Your task to perform on an android device: set an alarm Image 0: 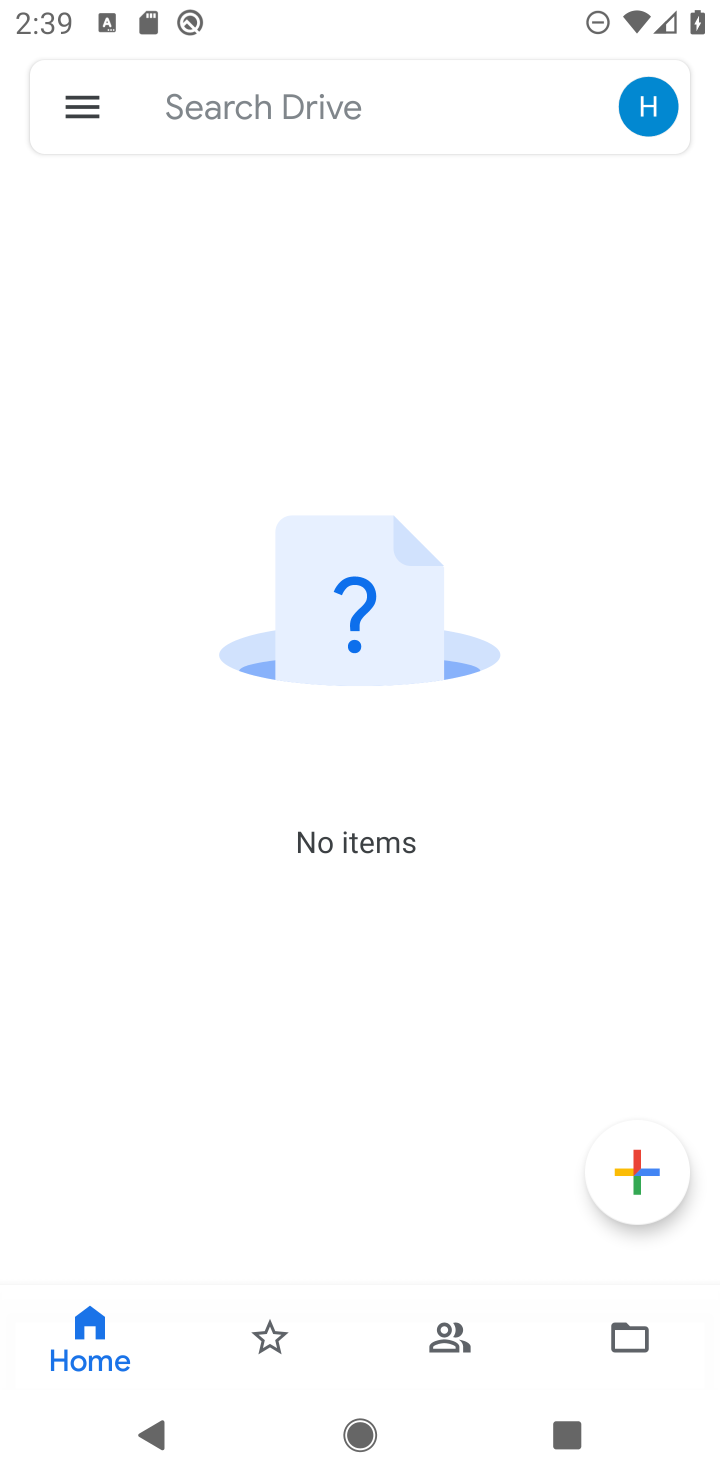
Step 0: press home button
Your task to perform on an android device: set an alarm Image 1: 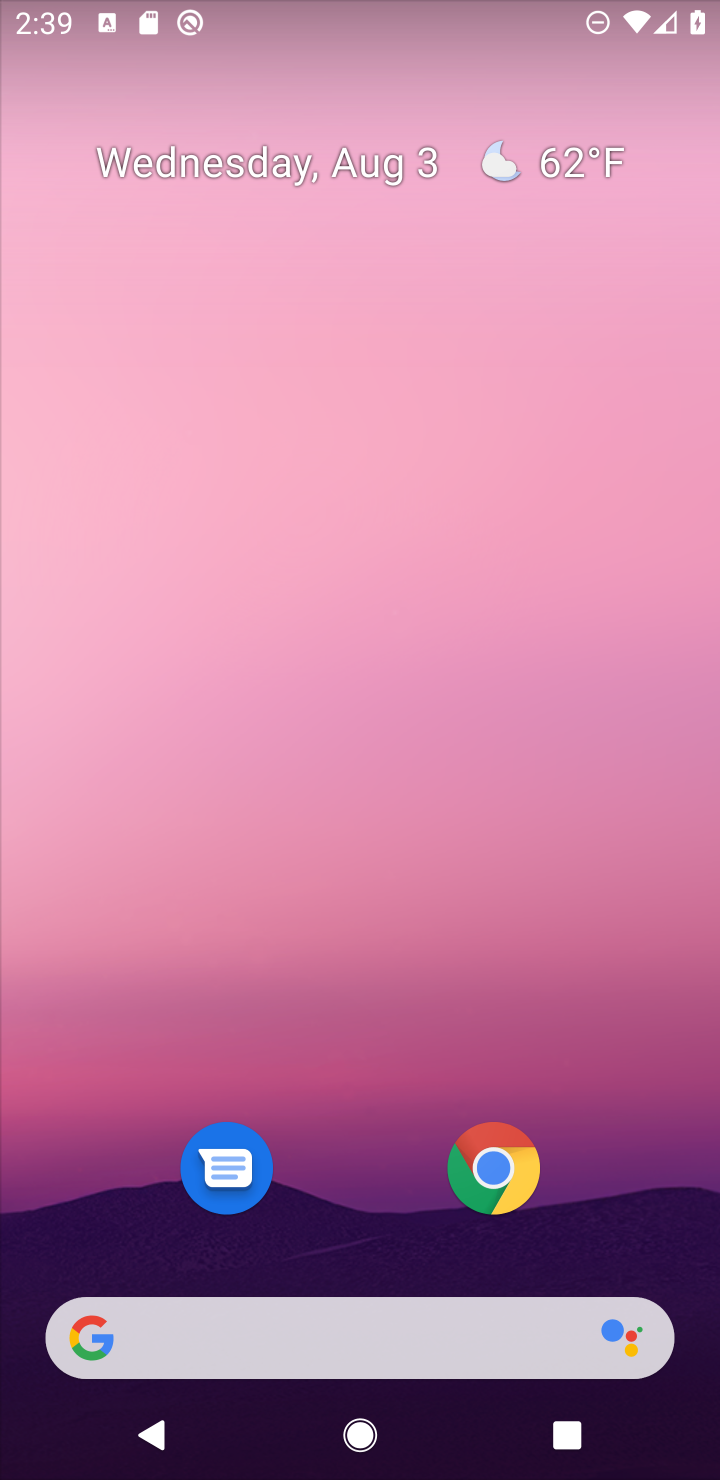
Step 1: drag from (641, 1226) to (568, 253)
Your task to perform on an android device: set an alarm Image 2: 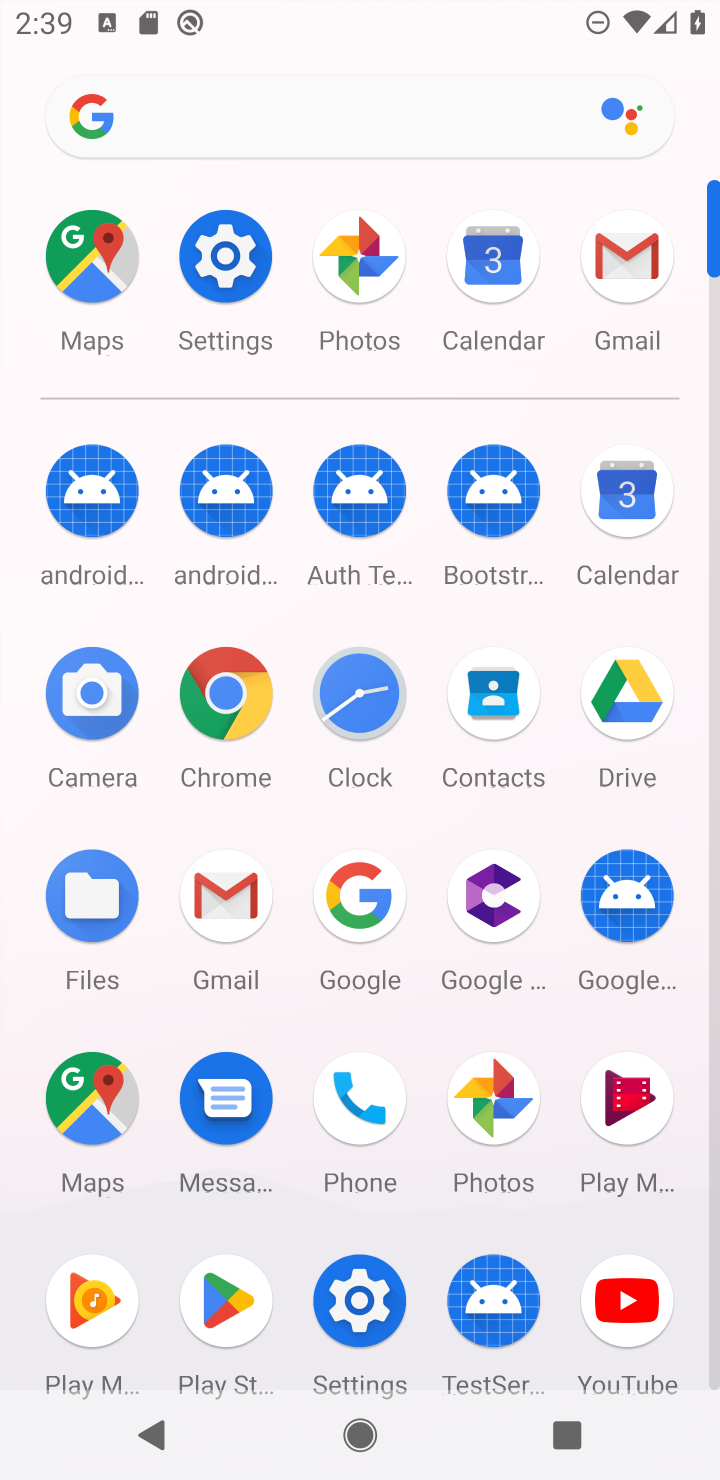
Step 2: click (359, 696)
Your task to perform on an android device: set an alarm Image 3: 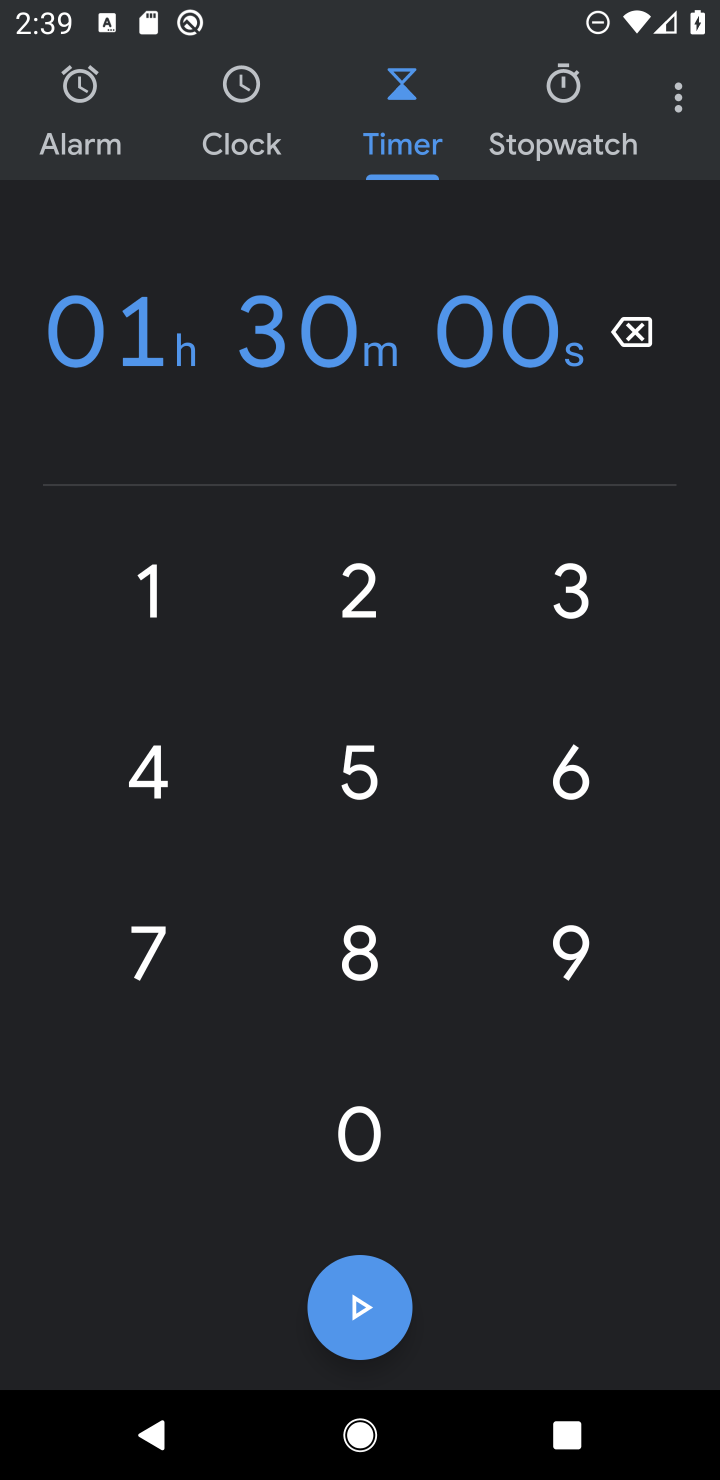
Step 3: click (85, 107)
Your task to perform on an android device: set an alarm Image 4: 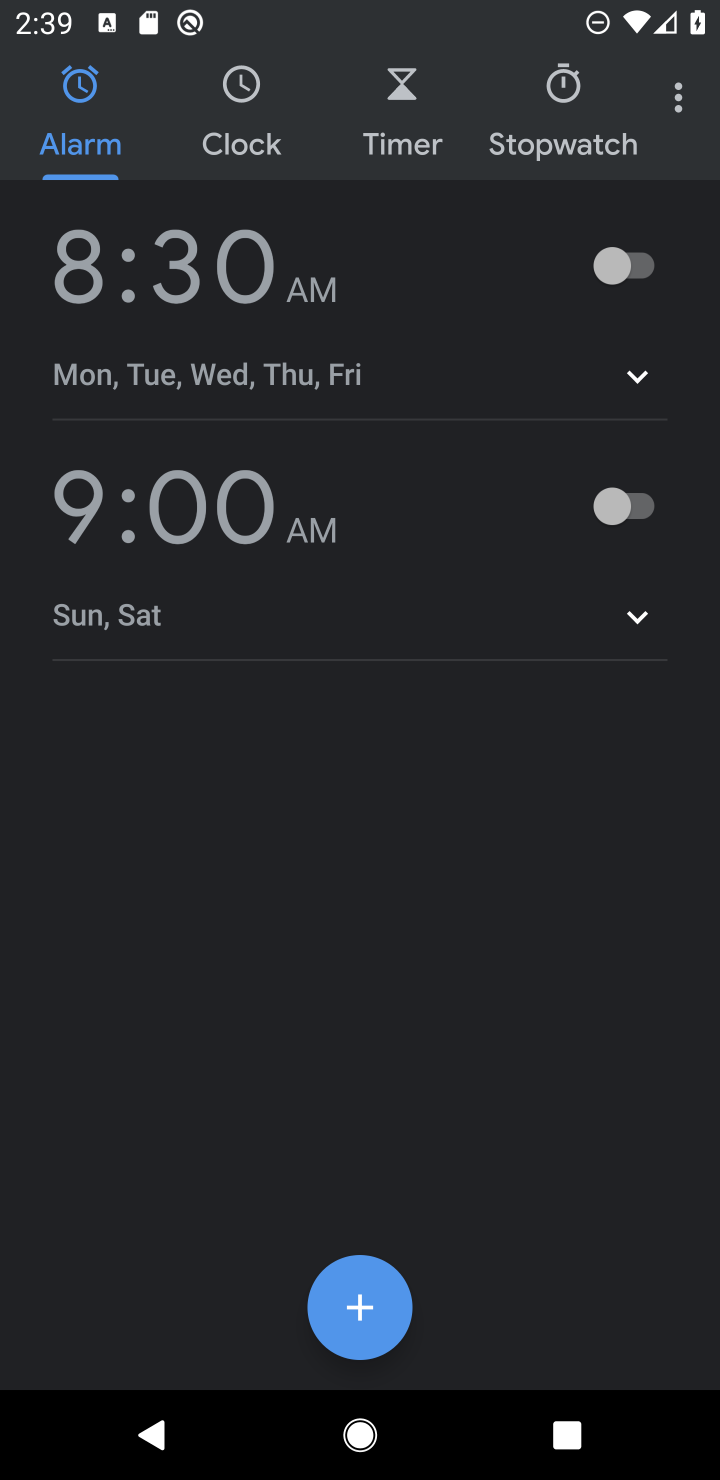
Step 4: click (168, 514)
Your task to perform on an android device: set an alarm Image 5: 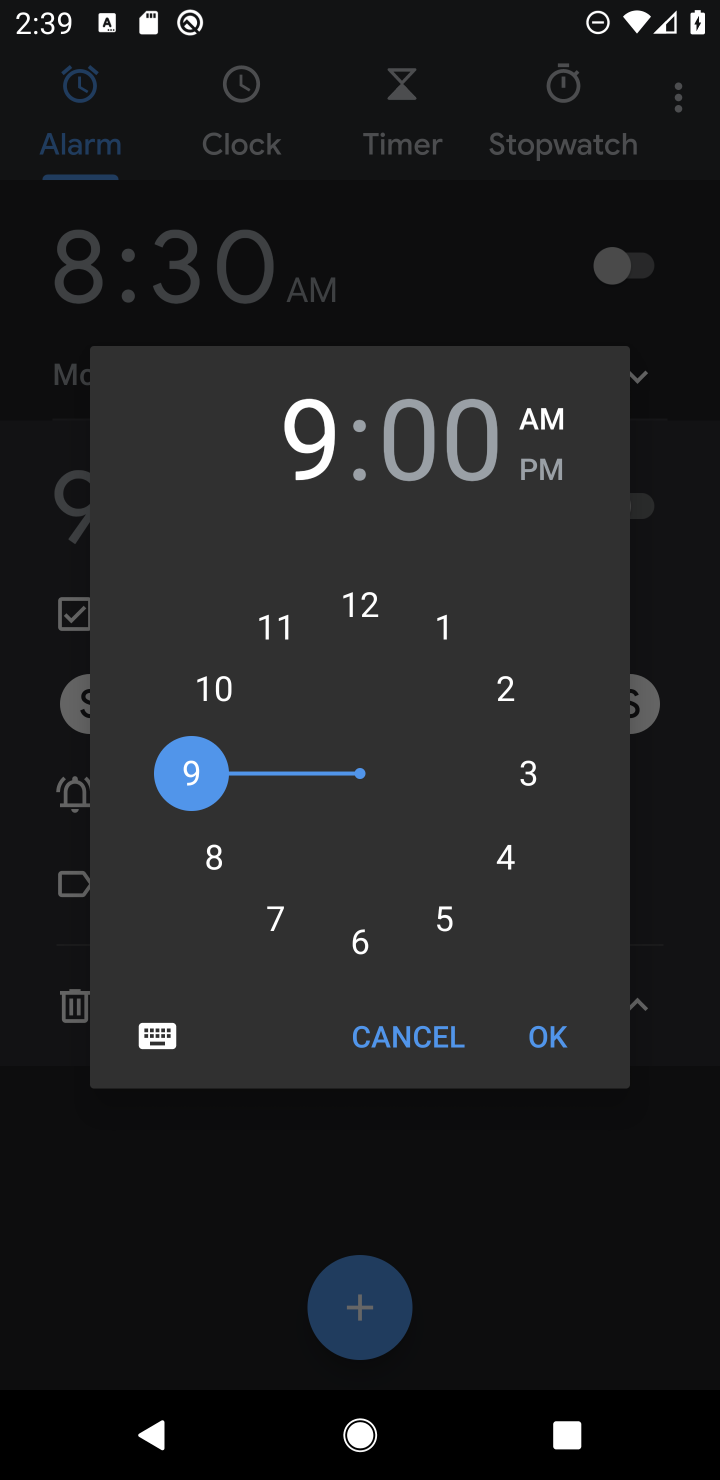
Step 5: click (361, 941)
Your task to perform on an android device: set an alarm Image 6: 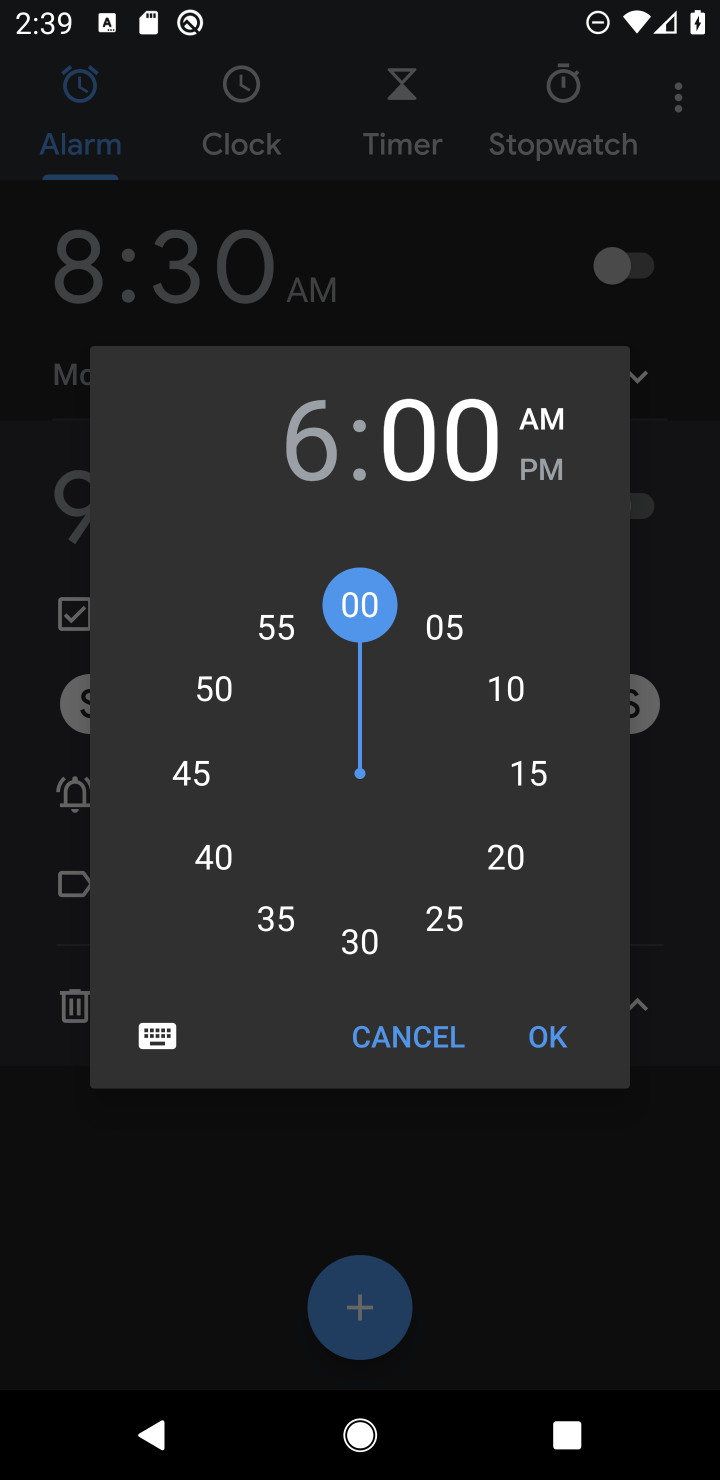
Step 6: click (553, 1039)
Your task to perform on an android device: set an alarm Image 7: 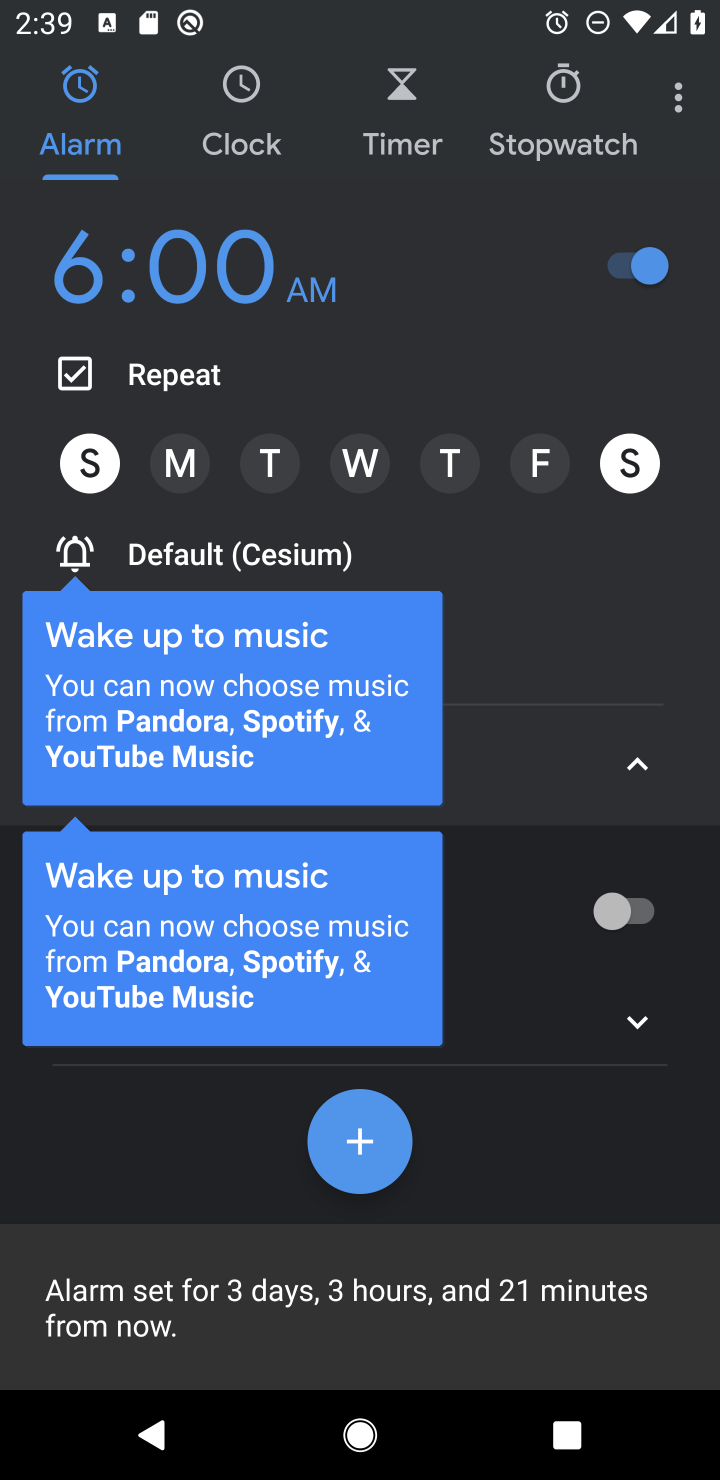
Step 7: click (194, 458)
Your task to perform on an android device: set an alarm Image 8: 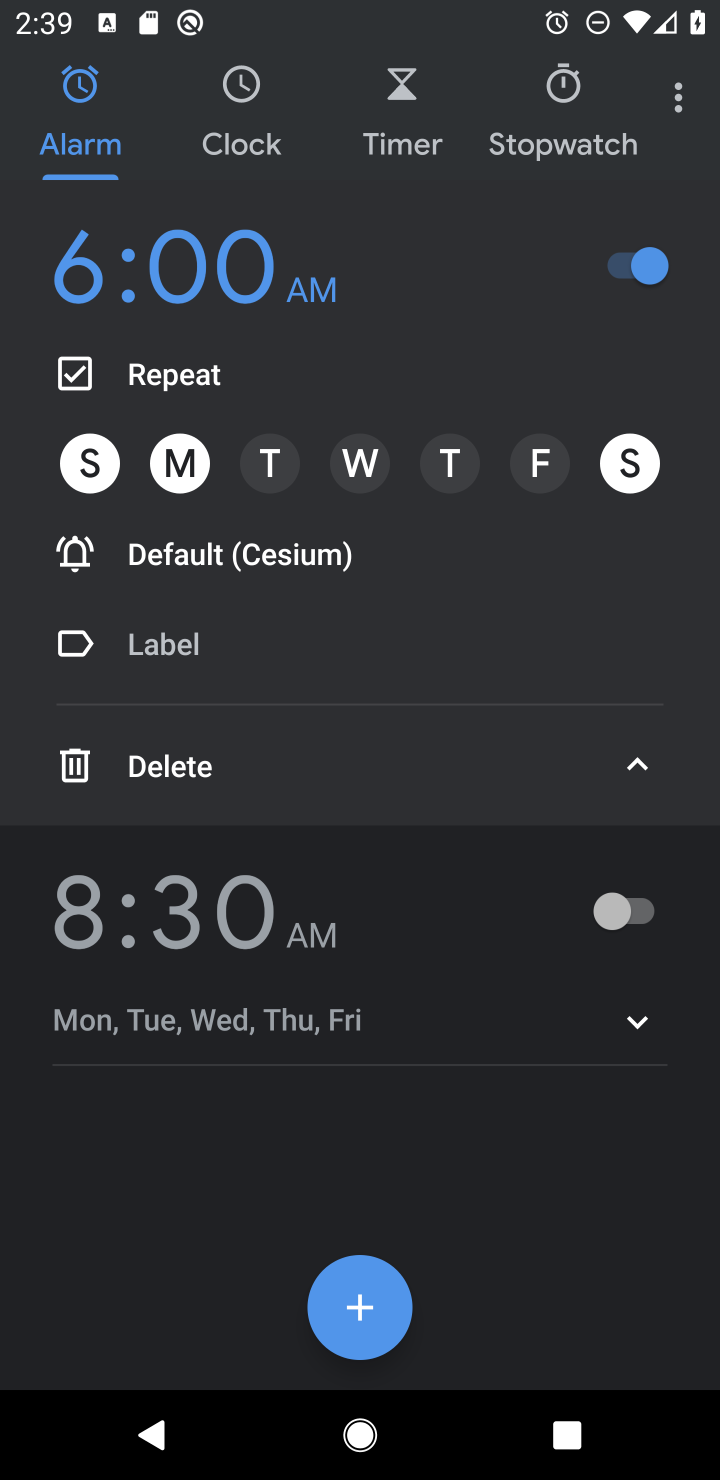
Step 8: click (267, 461)
Your task to perform on an android device: set an alarm Image 9: 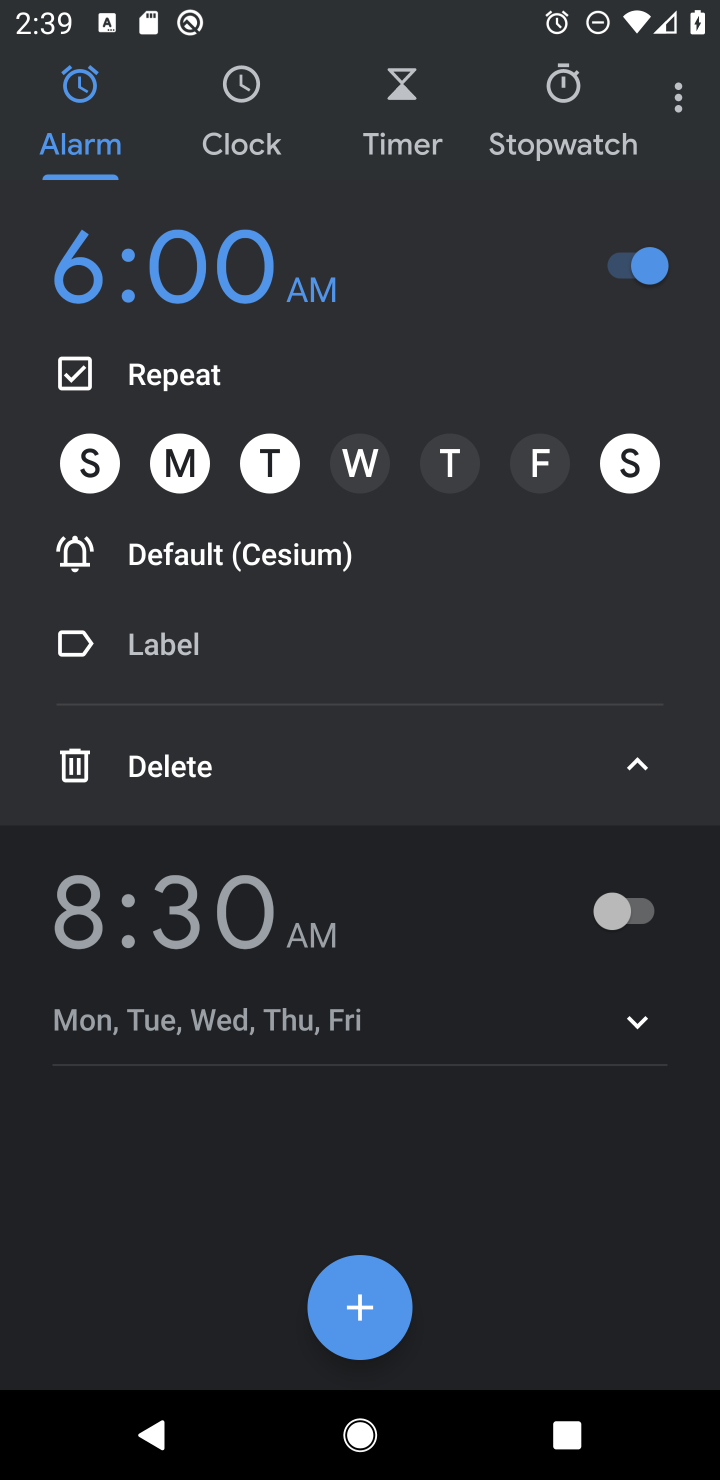
Step 9: click (344, 457)
Your task to perform on an android device: set an alarm Image 10: 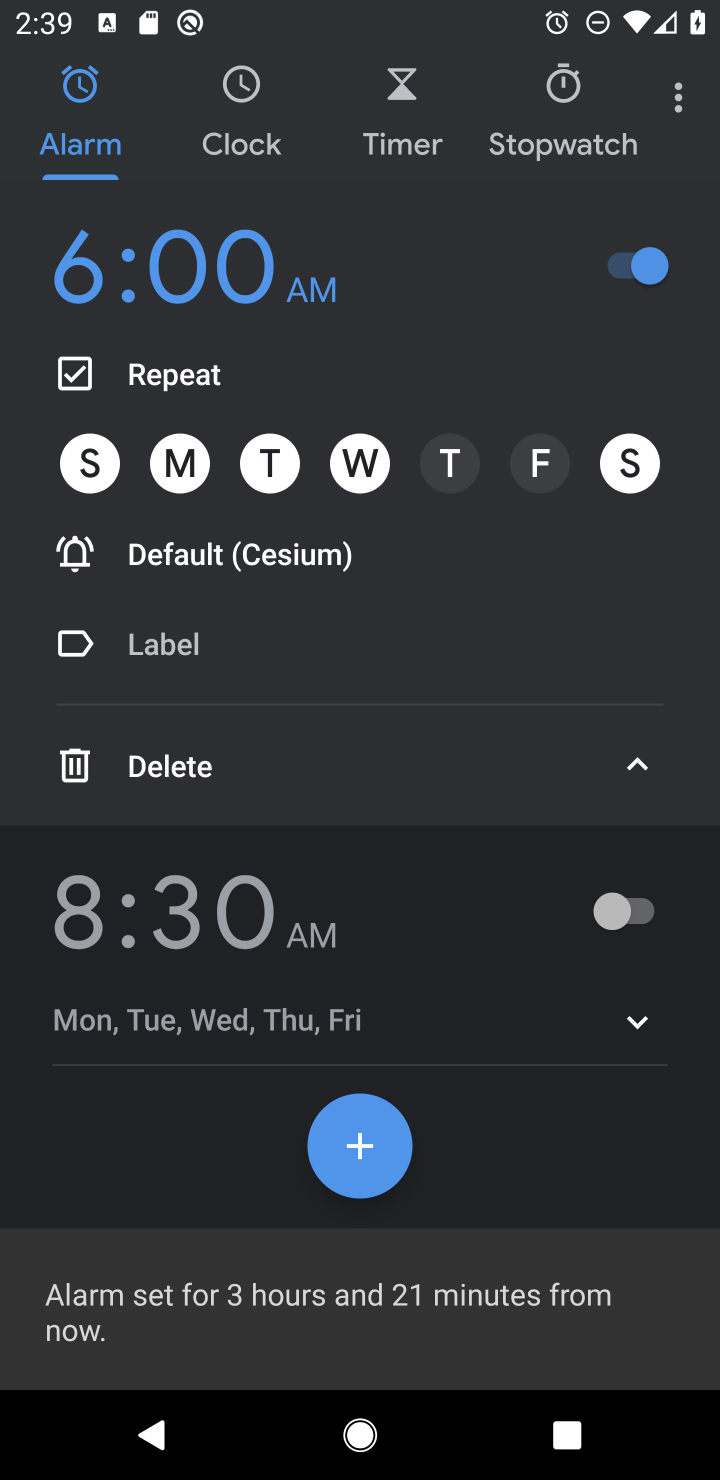
Step 10: click (442, 449)
Your task to perform on an android device: set an alarm Image 11: 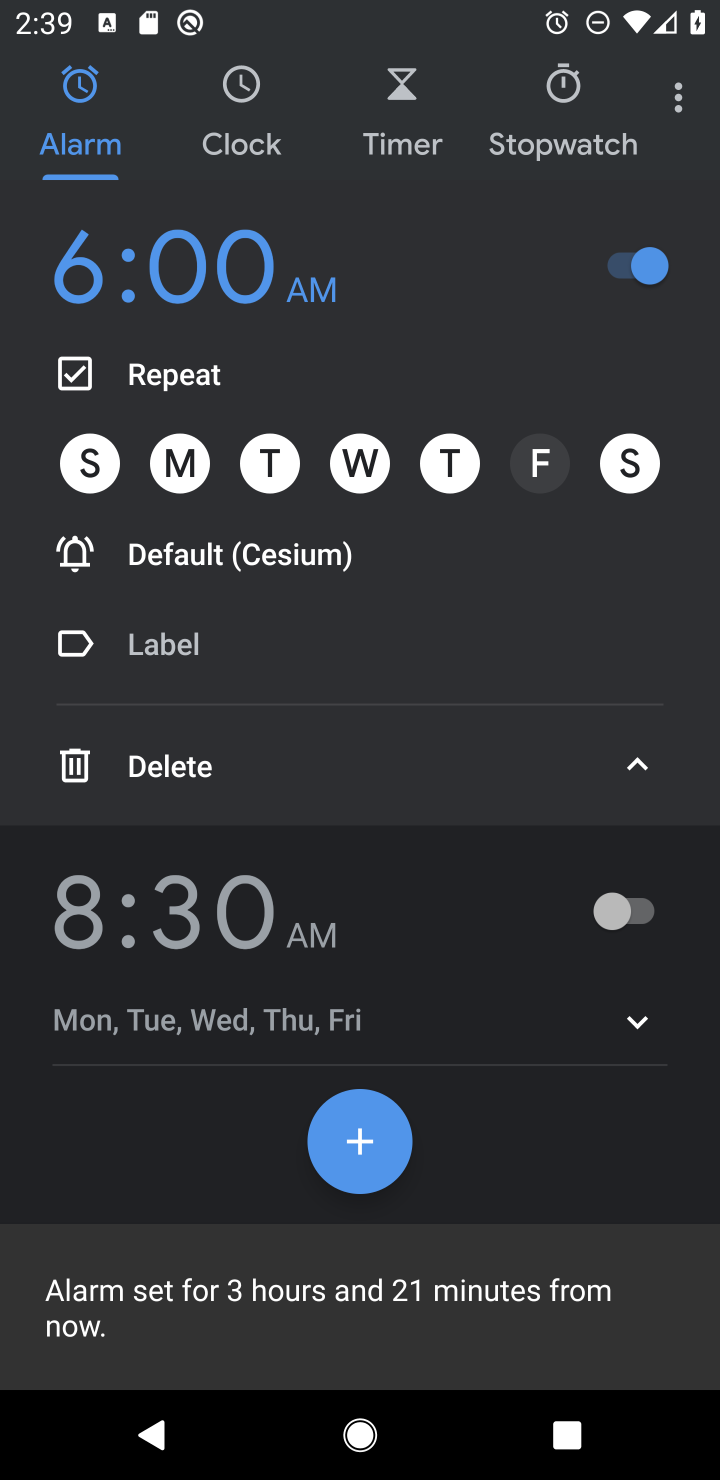
Step 11: click (547, 463)
Your task to perform on an android device: set an alarm Image 12: 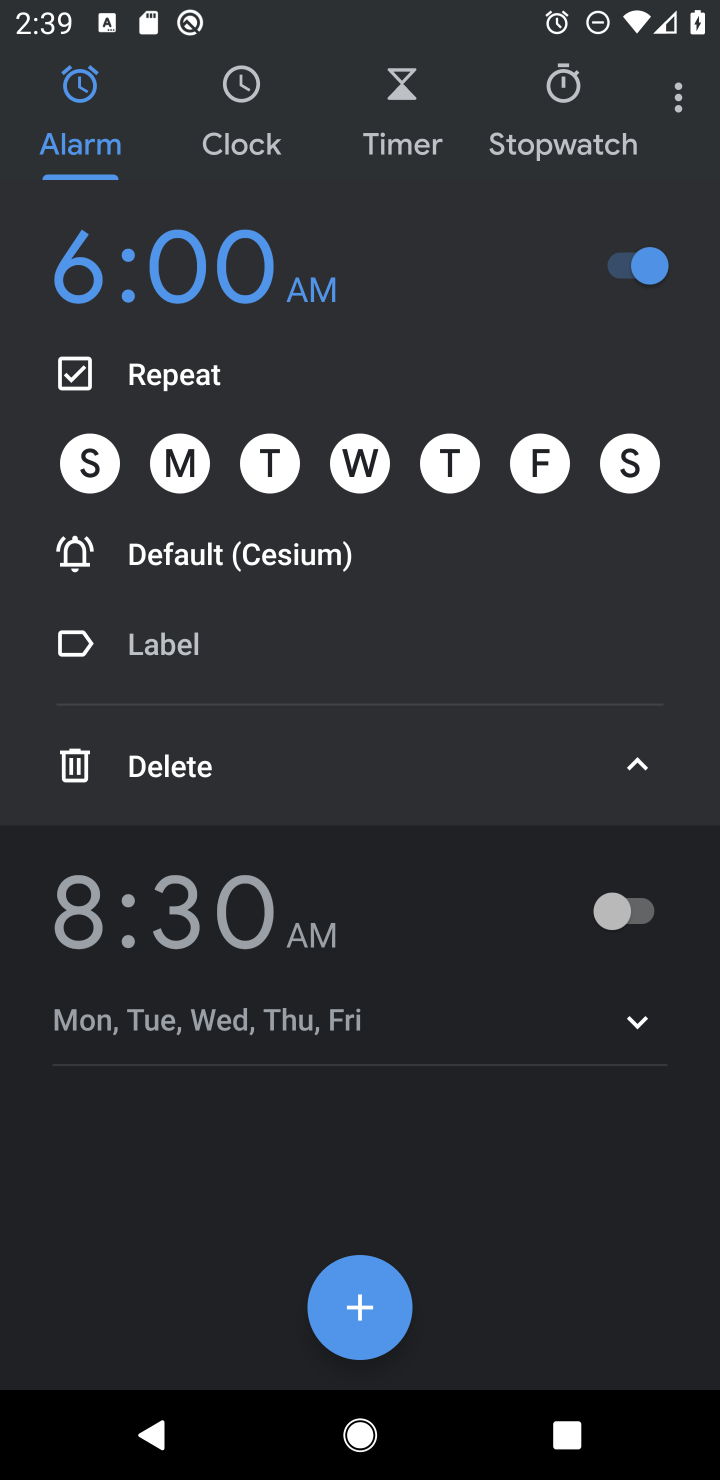
Step 12: click (85, 468)
Your task to perform on an android device: set an alarm Image 13: 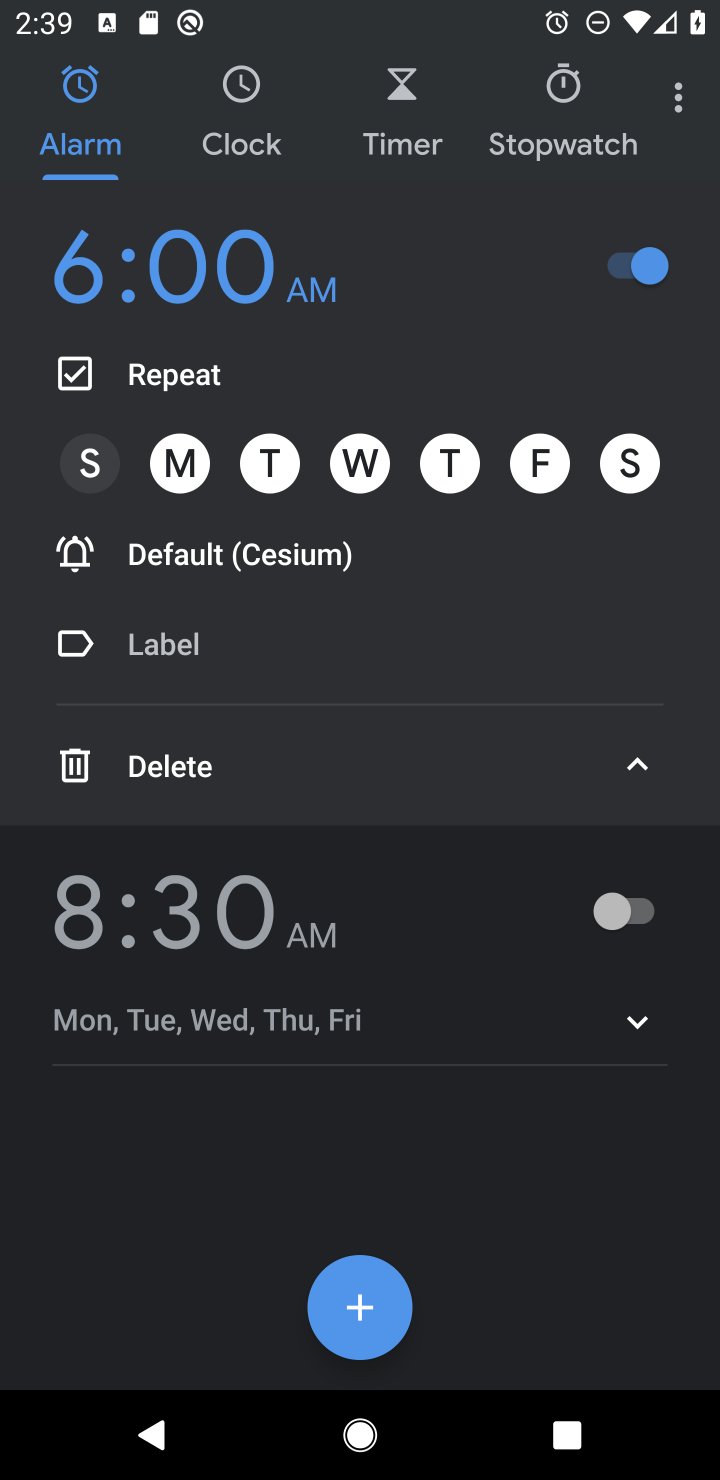
Step 13: click (636, 766)
Your task to perform on an android device: set an alarm Image 14: 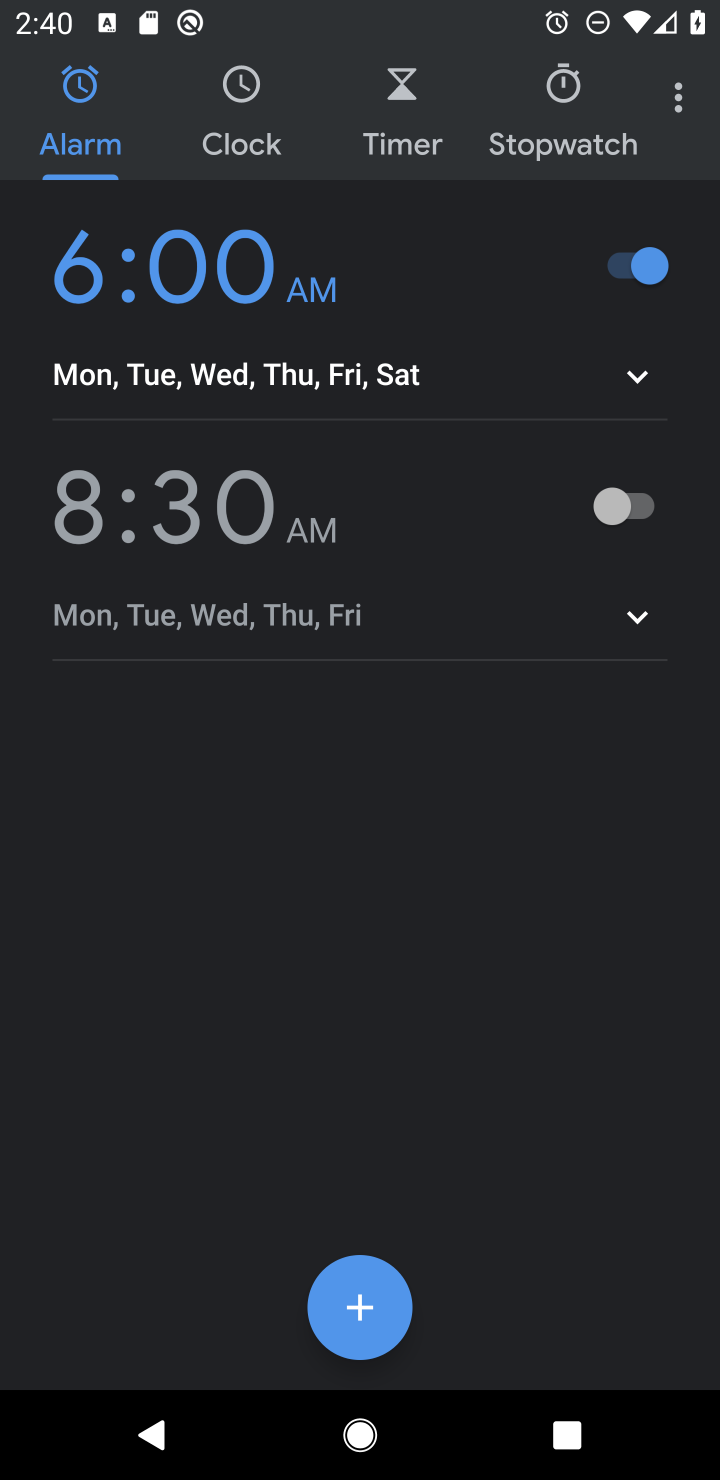
Step 14: task complete